Your task to perform on an android device: refresh tabs in the chrome app Image 0: 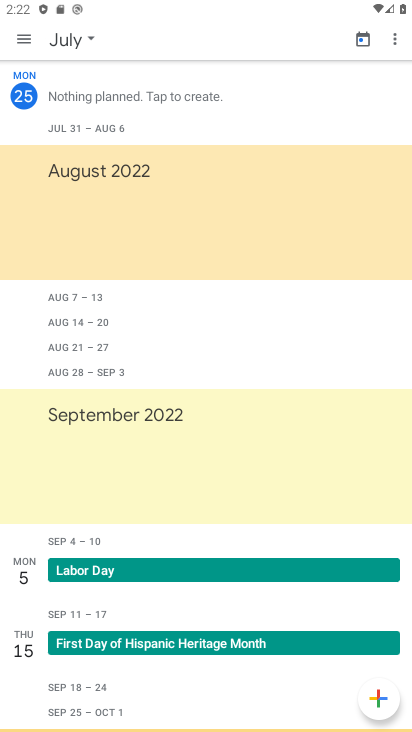
Step 0: press home button
Your task to perform on an android device: refresh tabs in the chrome app Image 1: 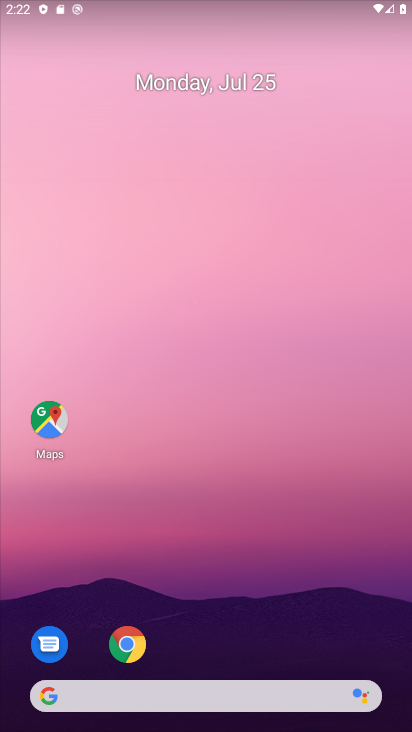
Step 1: click (142, 641)
Your task to perform on an android device: refresh tabs in the chrome app Image 2: 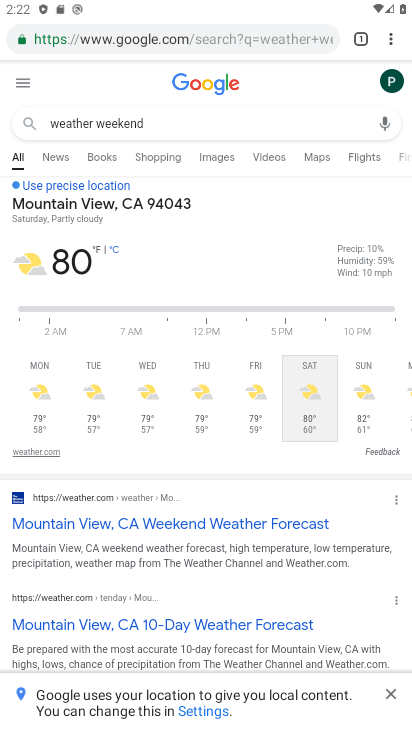
Step 2: click (385, 42)
Your task to perform on an android device: refresh tabs in the chrome app Image 3: 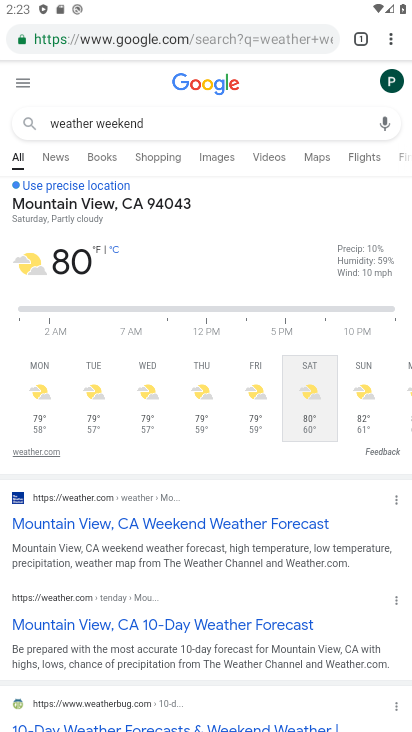
Step 3: task complete